Your task to perform on an android device: set the timer Image 0: 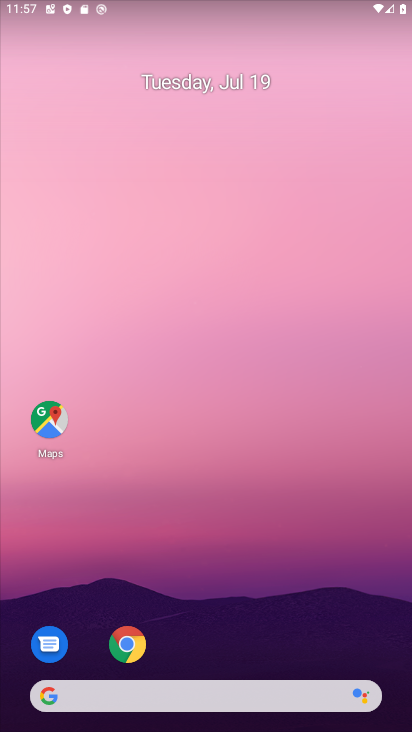
Step 0: drag from (312, 612) to (310, 58)
Your task to perform on an android device: set the timer Image 1: 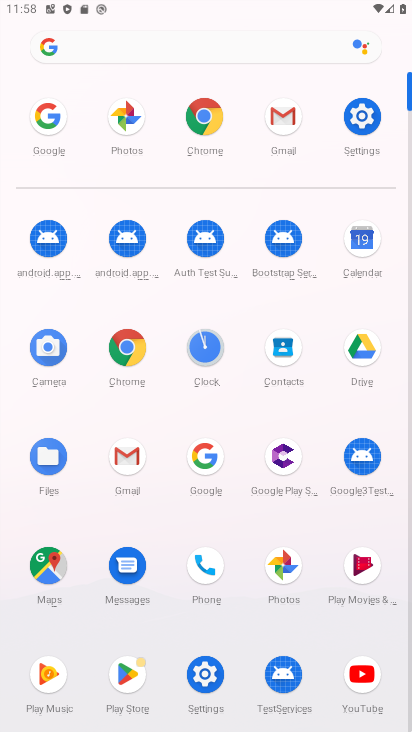
Step 1: click (206, 328)
Your task to perform on an android device: set the timer Image 2: 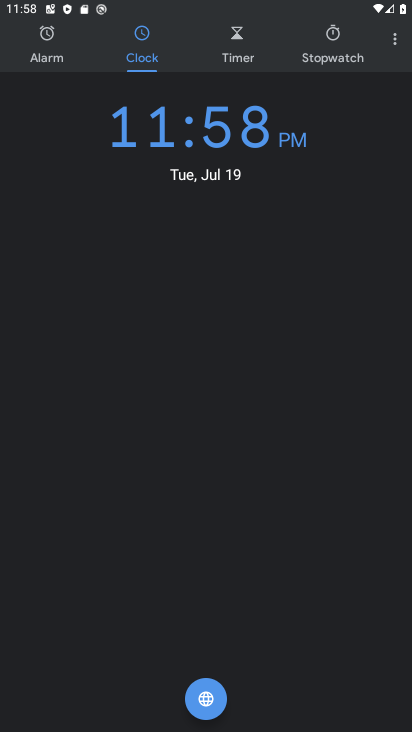
Step 2: click (234, 68)
Your task to perform on an android device: set the timer Image 3: 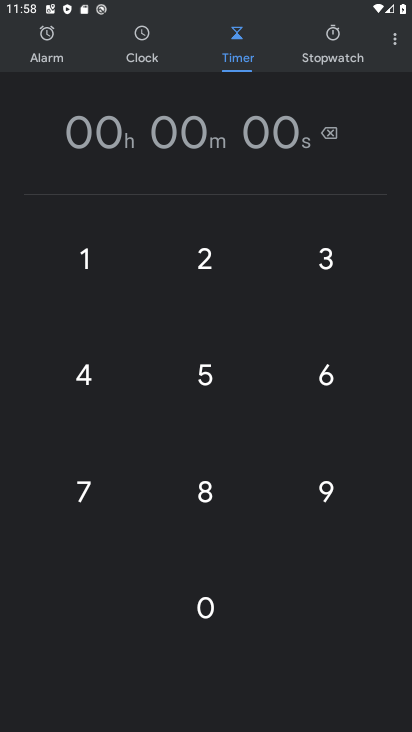
Step 3: click (220, 490)
Your task to perform on an android device: set the timer Image 4: 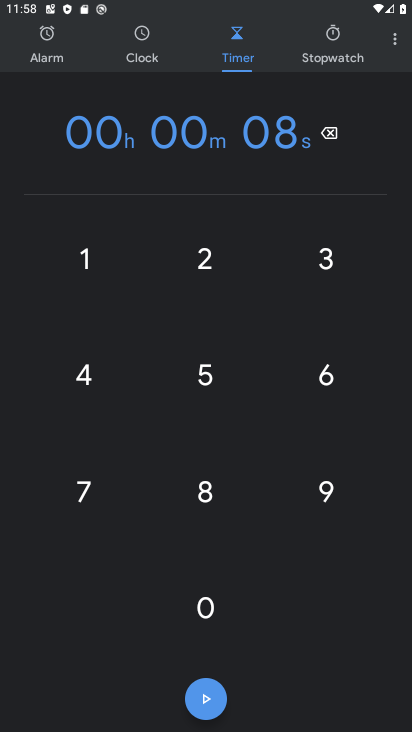
Step 4: click (207, 662)
Your task to perform on an android device: set the timer Image 5: 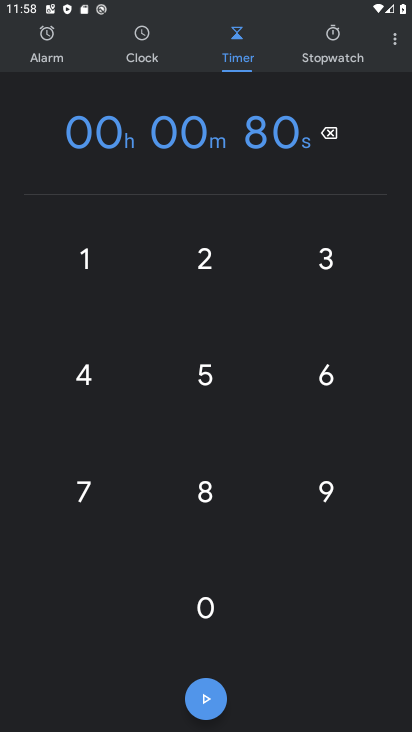
Step 5: click (206, 685)
Your task to perform on an android device: set the timer Image 6: 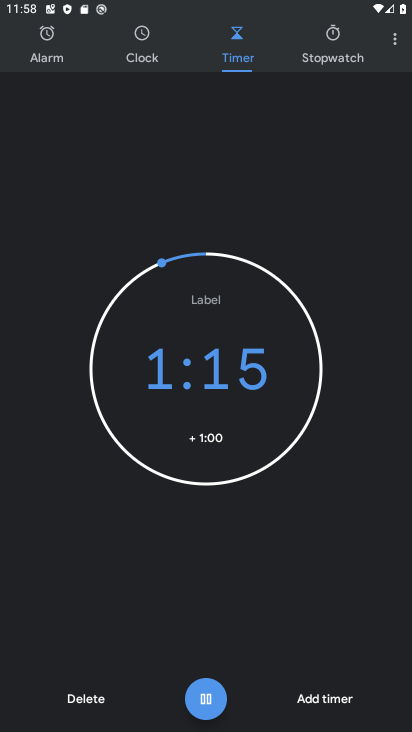
Step 6: task complete